Your task to perform on an android device: Open Youtube and go to the subscriptions tab Image 0: 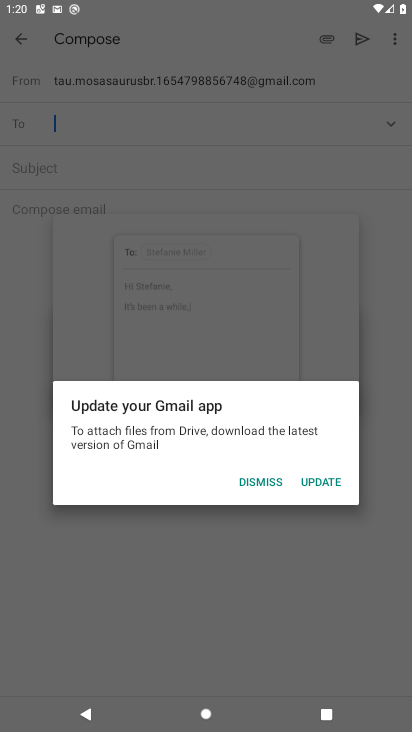
Step 0: press home button
Your task to perform on an android device: Open Youtube and go to the subscriptions tab Image 1: 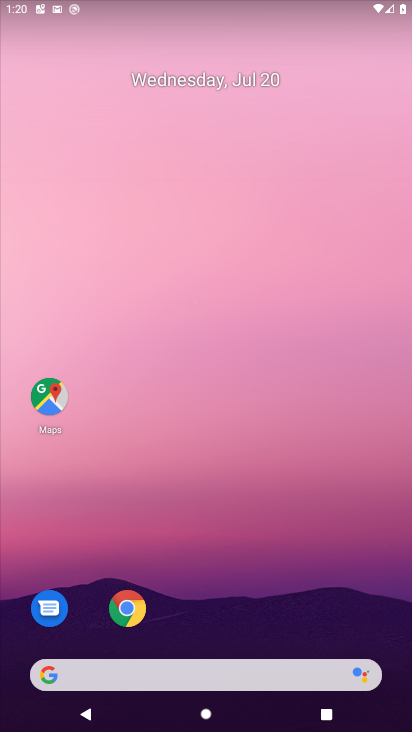
Step 1: drag from (258, 662) to (159, 123)
Your task to perform on an android device: Open Youtube and go to the subscriptions tab Image 2: 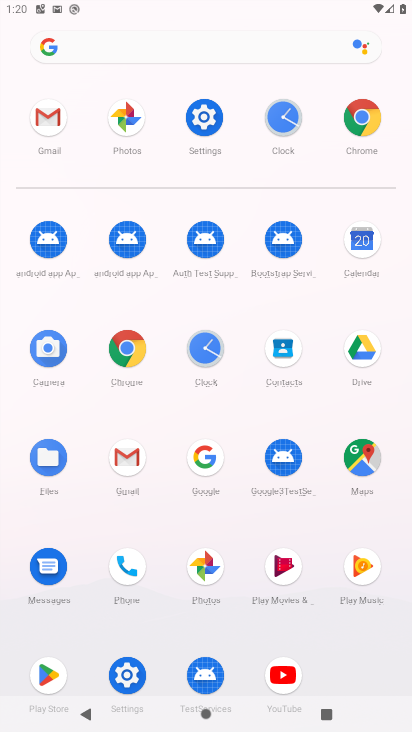
Step 2: click (292, 667)
Your task to perform on an android device: Open Youtube and go to the subscriptions tab Image 3: 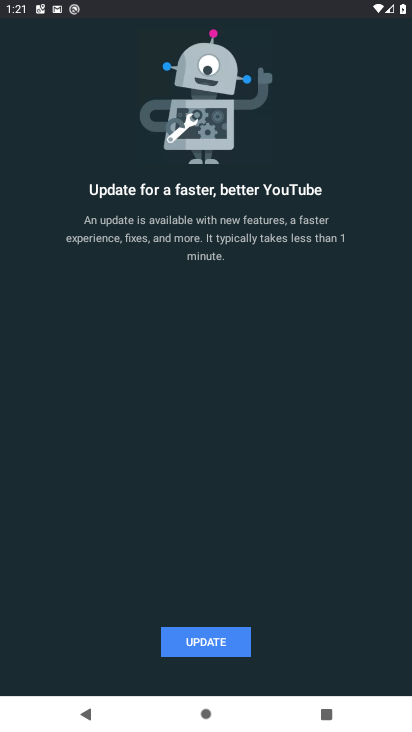
Step 3: drag from (217, 634) to (130, 634)
Your task to perform on an android device: Open Youtube and go to the subscriptions tab Image 4: 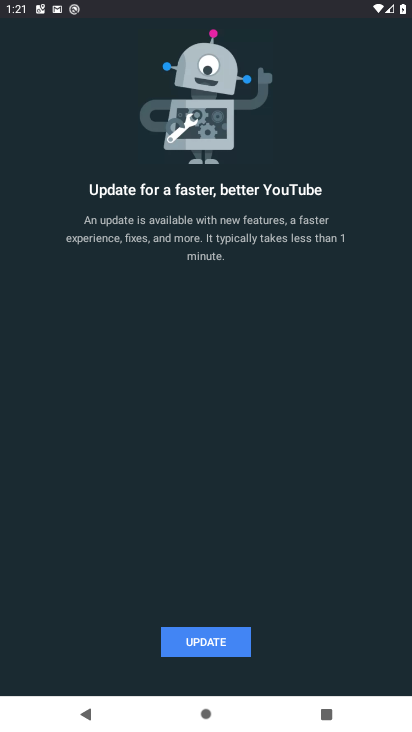
Step 4: click (185, 649)
Your task to perform on an android device: Open Youtube and go to the subscriptions tab Image 5: 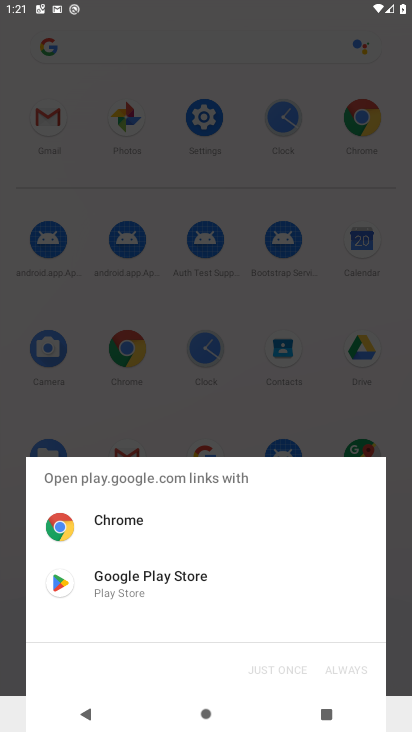
Step 5: click (134, 587)
Your task to perform on an android device: Open Youtube and go to the subscriptions tab Image 6: 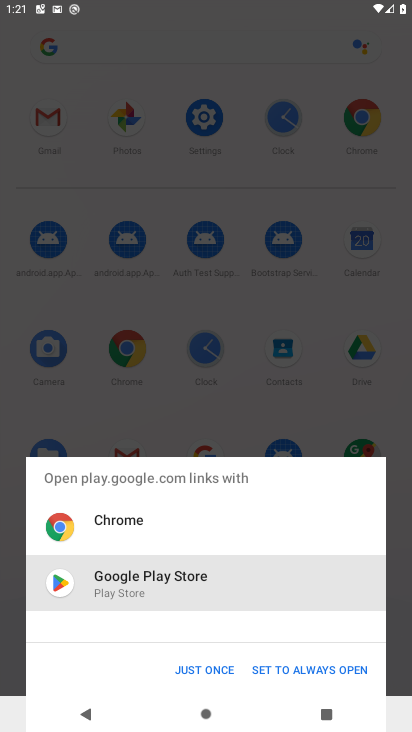
Step 6: click (206, 670)
Your task to perform on an android device: Open Youtube and go to the subscriptions tab Image 7: 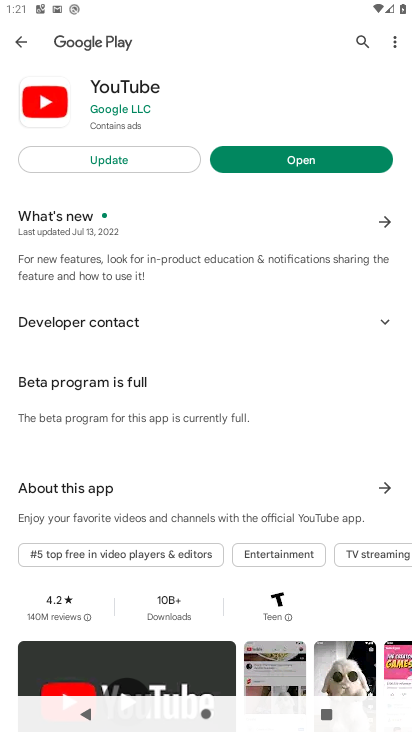
Step 7: click (101, 162)
Your task to perform on an android device: Open Youtube and go to the subscriptions tab Image 8: 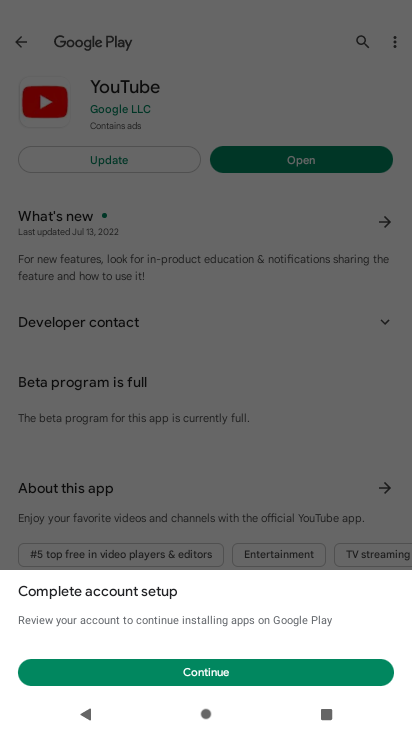
Step 8: click (104, 161)
Your task to perform on an android device: Open Youtube and go to the subscriptions tab Image 9: 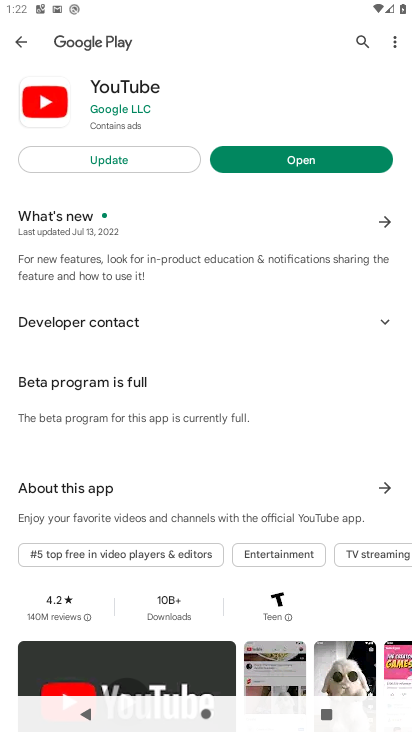
Step 9: click (268, 164)
Your task to perform on an android device: Open Youtube and go to the subscriptions tab Image 10: 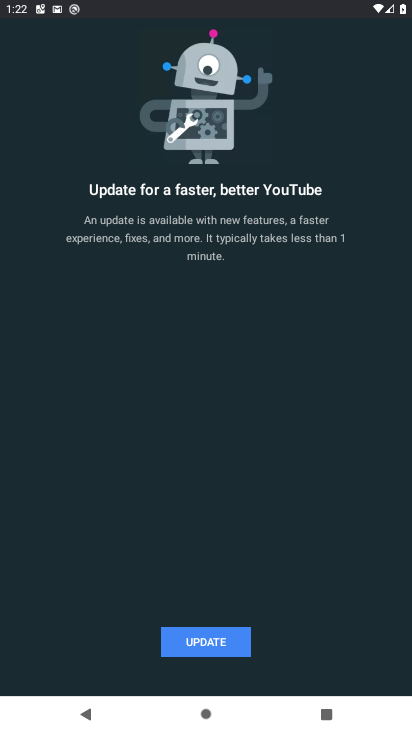
Step 10: click (228, 640)
Your task to perform on an android device: Open Youtube and go to the subscriptions tab Image 11: 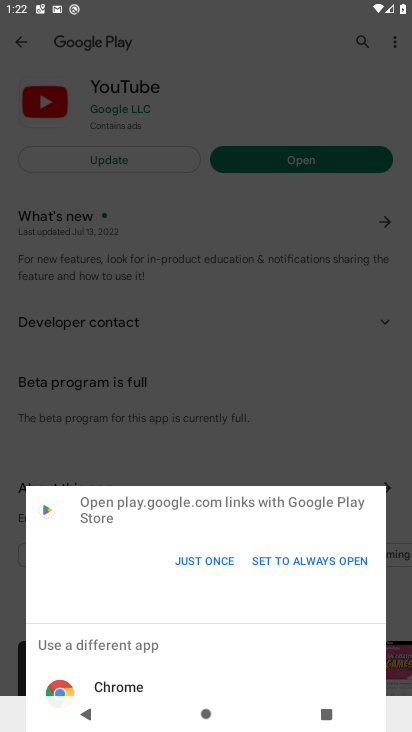
Step 11: click (187, 555)
Your task to perform on an android device: Open Youtube and go to the subscriptions tab Image 12: 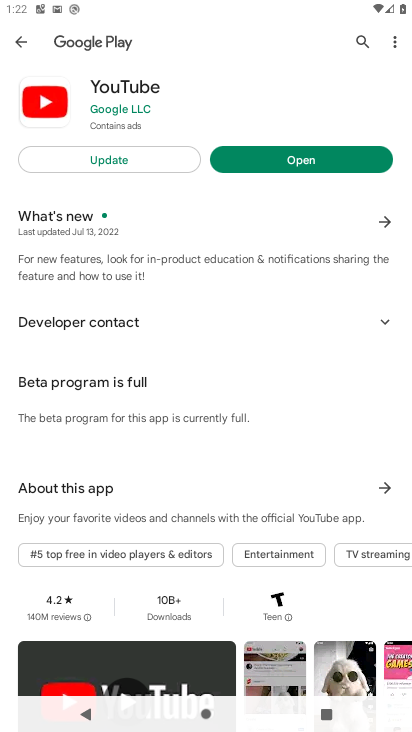
Step 12: click (111, 162)
Your task to perform on an android device: Open Youtube and go to the subscriptions tab Image 13: 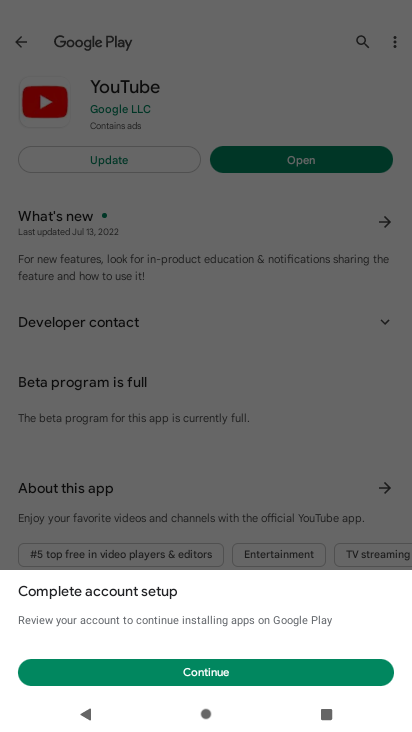
Step 13: click (212, 675)
Your task to perform on an android device: Open Youtube and go to the subscriptions tab Image 14: 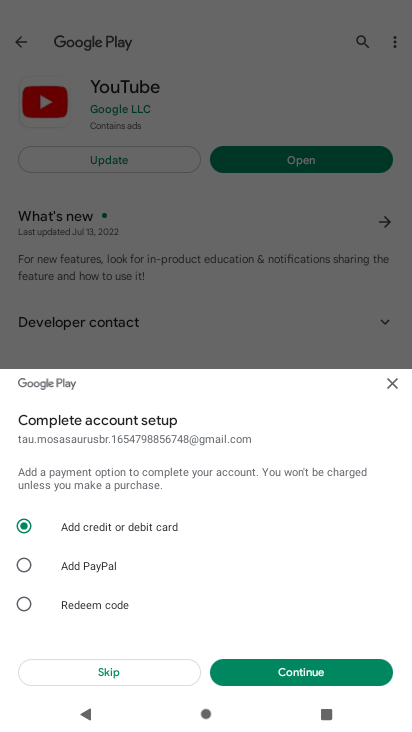
Step 14: click (190, 207)
Your task to perform on an android device: Open Youtube and go to the subscriptions tab Image 15: 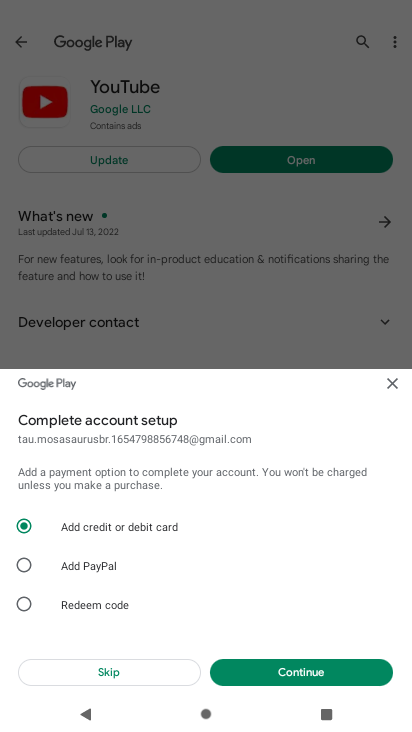
Step 15: click (116, 675)
Your task to perform on an android device: Open Youtube and go to the subscriptions tab Image 16: 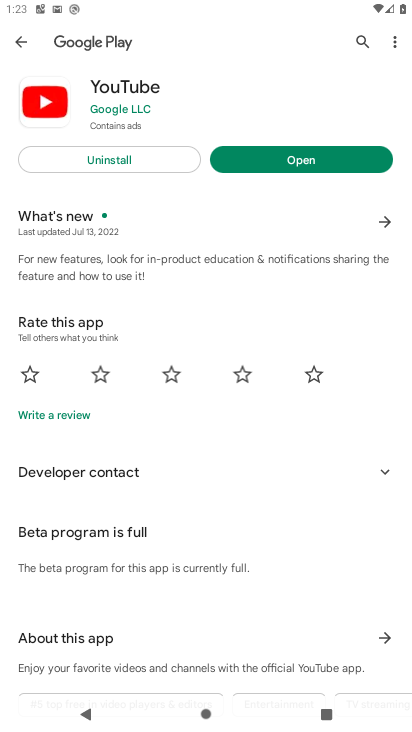
Step 16: click (292, 159)
Your task to perform on an android device: Open Youtube and go to the subscriptions tab Image 17: 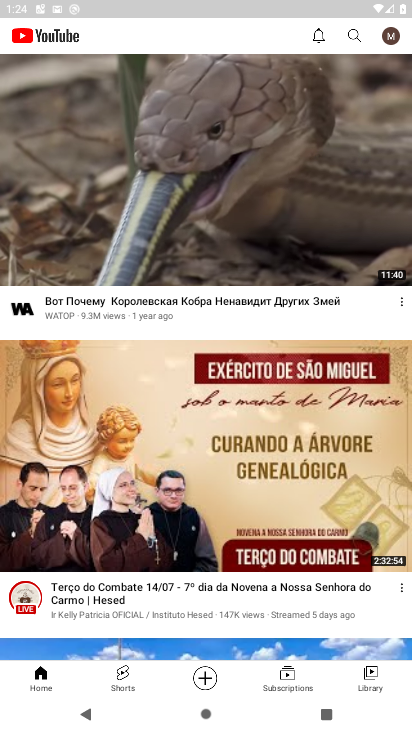
Step 17: click (289, 665)
Your task to perform on an android device: Open Youtube and go to the subscriptions tab Image 18: 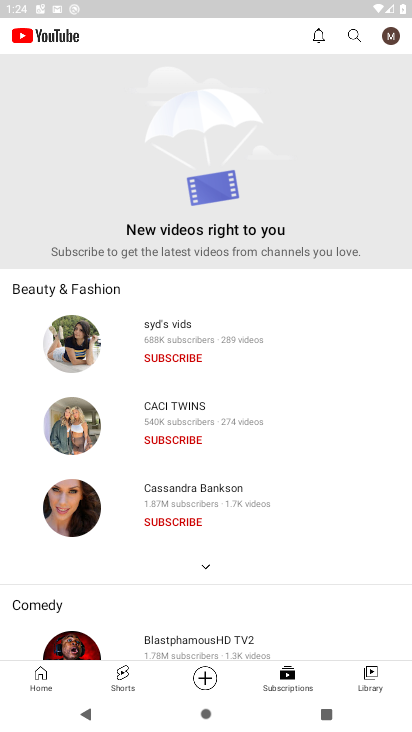
Step 18: task complete